Your task to perform on an android device: open sync settings in chrome Image 0: 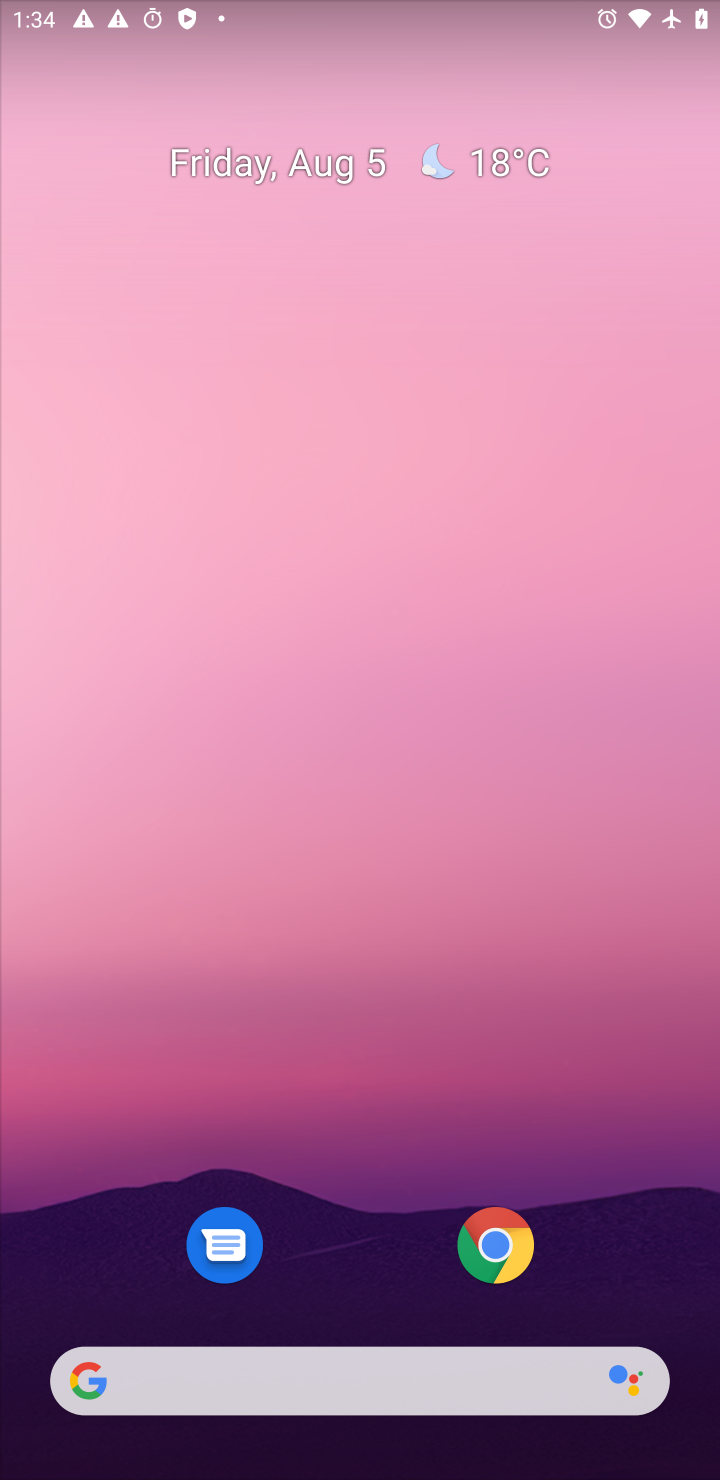
Step 0: drag from (385, 1281) to (441, 475)
Your task to perform on an android device: open sync settings in chrome Image 1: 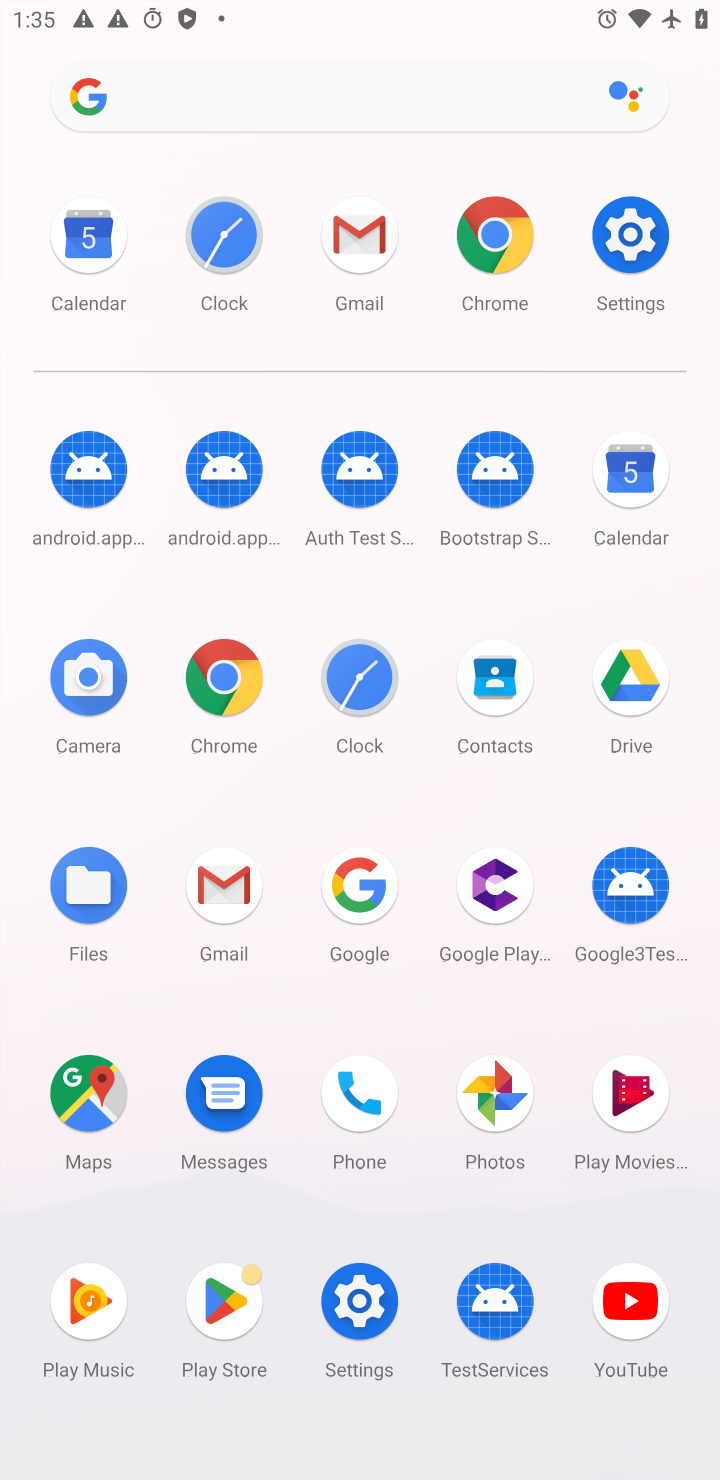
Step 1: click (495, 225)
Your task to perform on an android device: open sync settings in chrome Image 2: 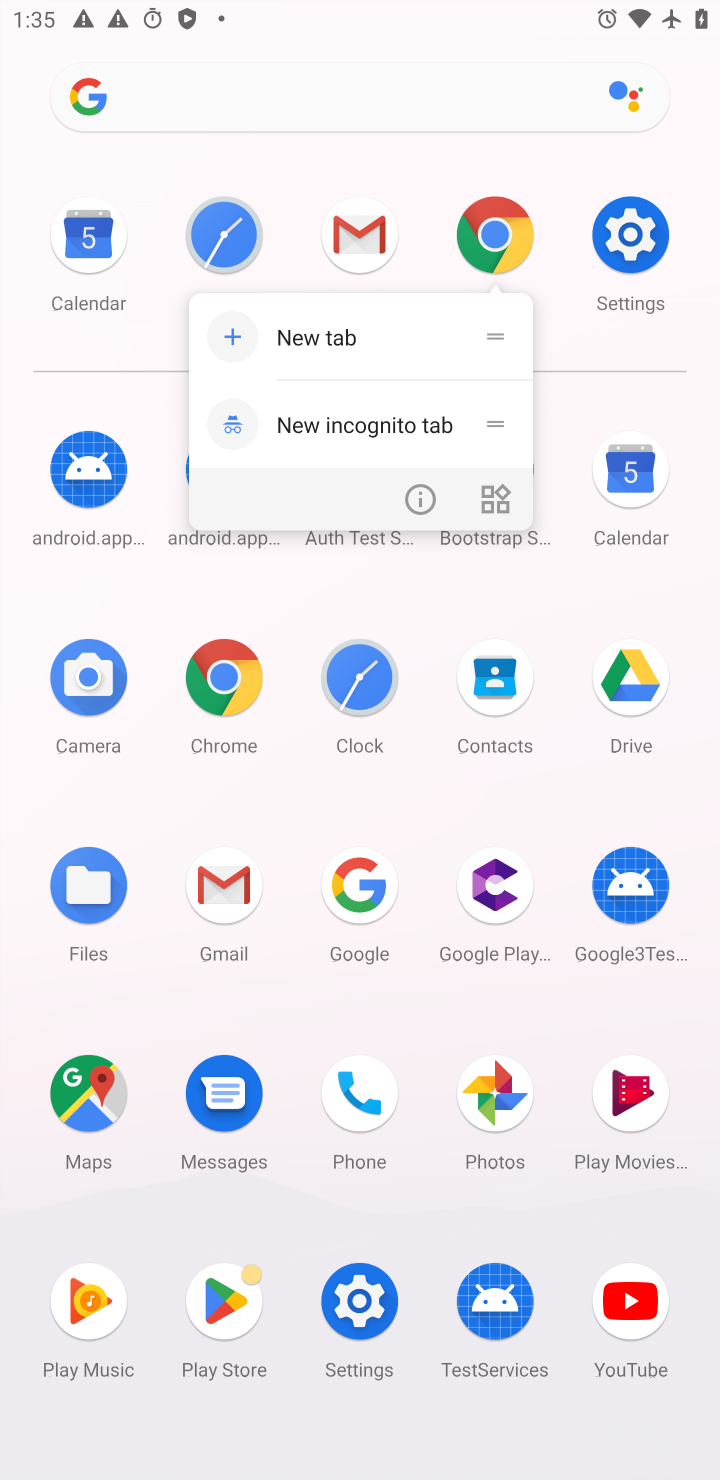
Step 2: click (495, 225)
Your task to perform on an android device: open sync settings in chrome Image 3: 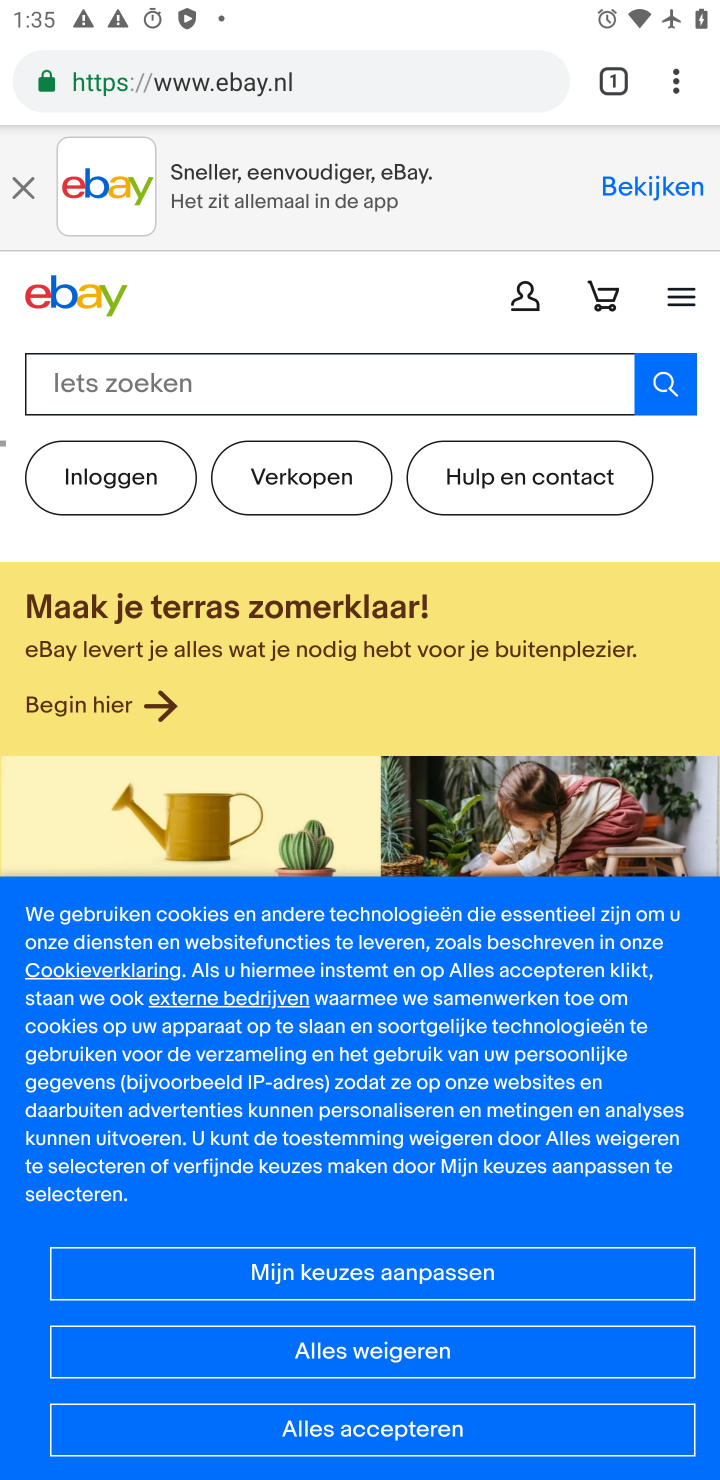
Step 3: drag from (682, 86) to (372, 1100)
Your task to perform on an android device: open sync settings in chrome Image 4: 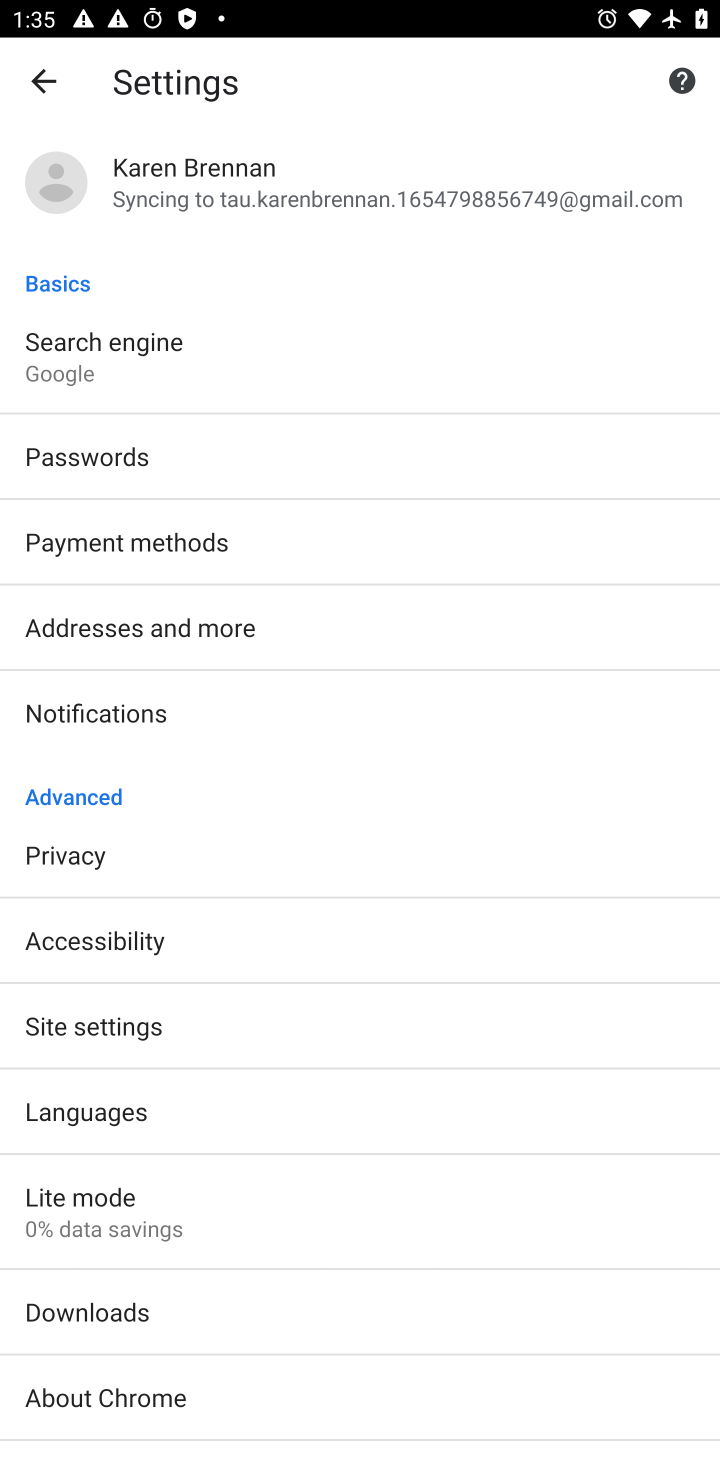
Step 4: click (314, 190)
Your task to perform on an android device: open sync settings in chrome Image 5: 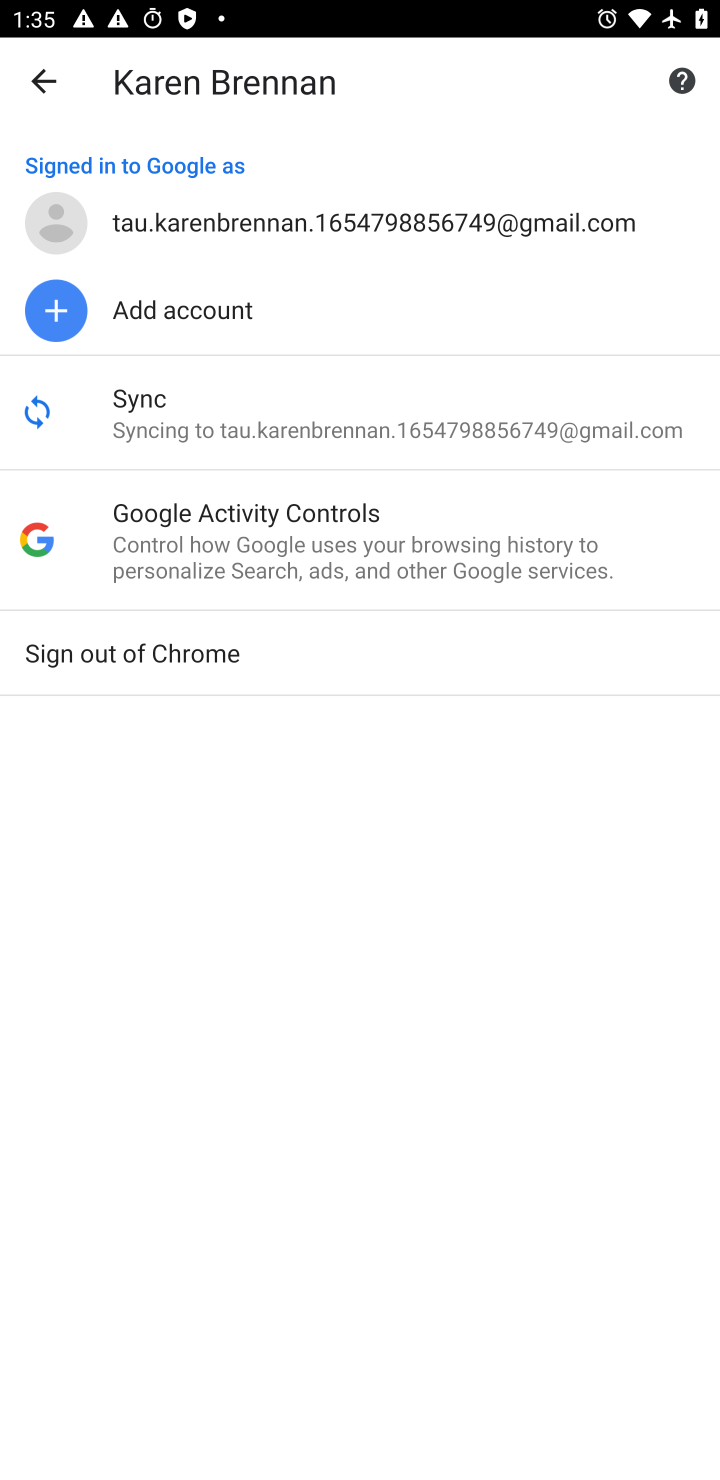
Step 5: click (206, 425)
Your task to perform on an android device: open sync settings in chrome Image 6: 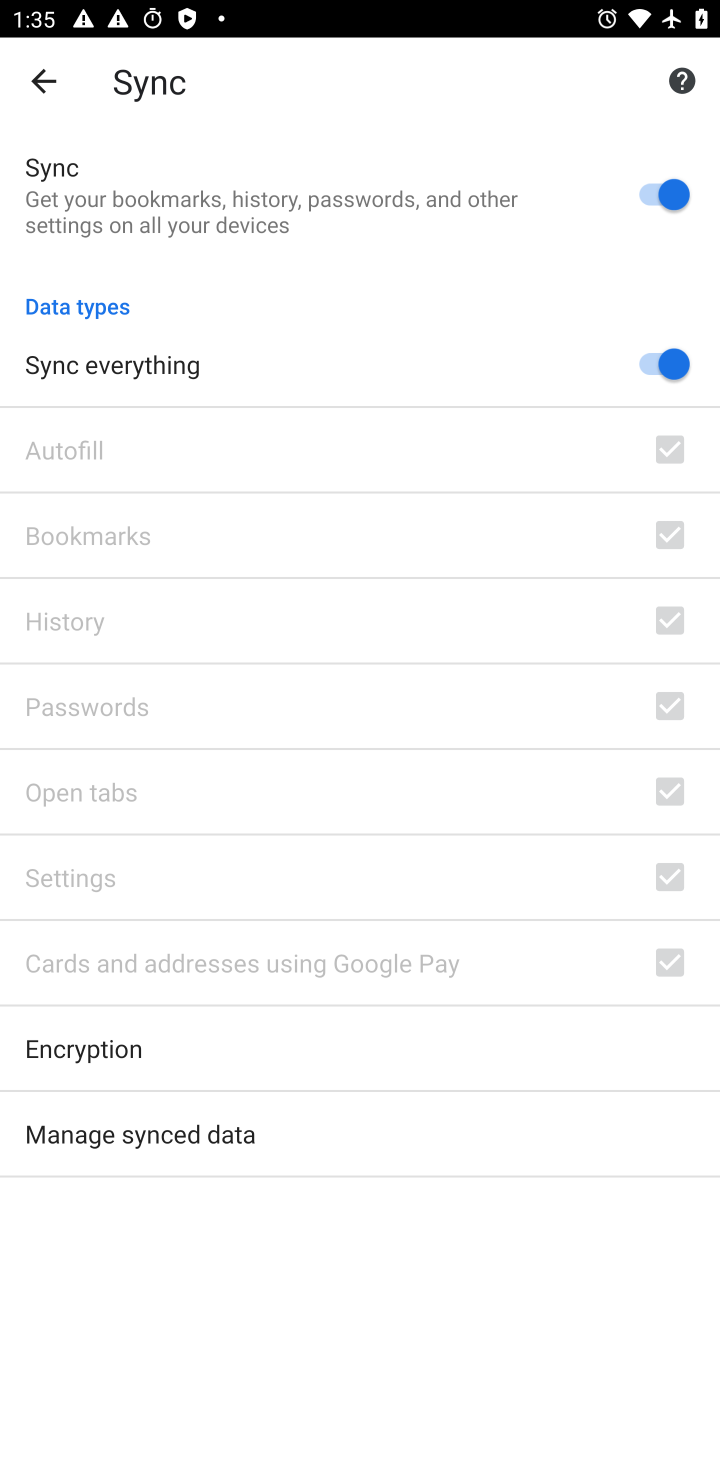
Step 6: task complete